Your task to perform on an android device: remove spam from my inbox in the gmail app Image 0: 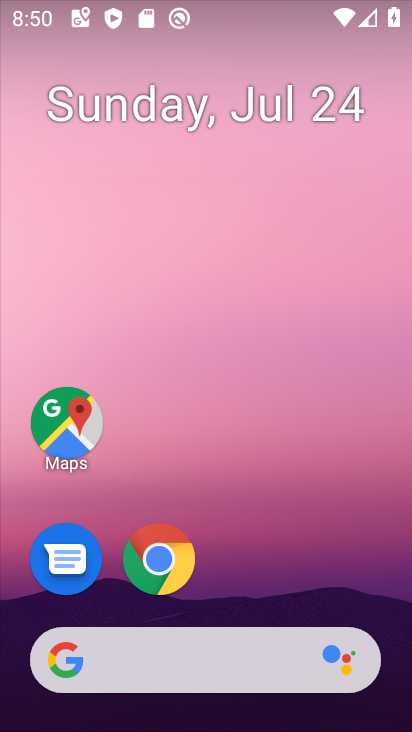
Step 0: drag from (237, 583) to (291, 60)
Your task to perform on an android device: remove spam from my inbox in the gmail app Image 1: 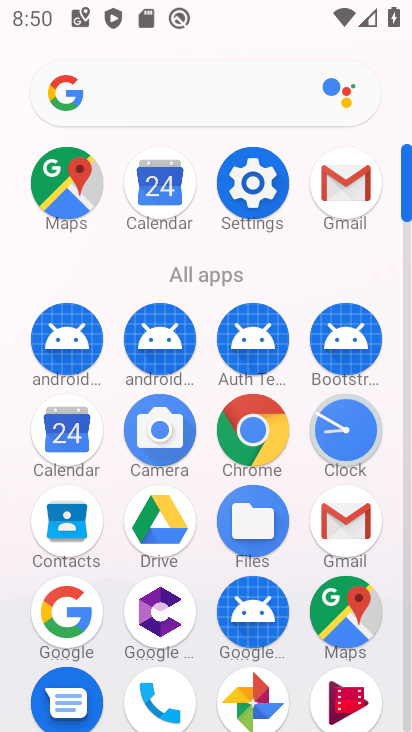
Step 1: click (355, 180)
Your task to perform on an android device: remove spam from my inbox in the gmail app Image 2: 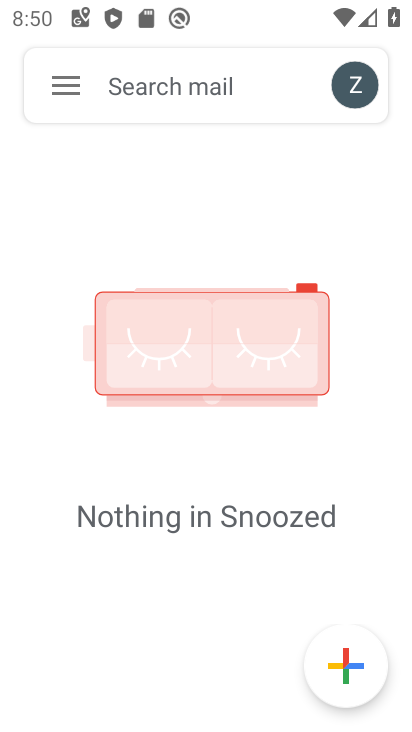
Step 2: click (57, 77)
Your task to perform on an android device: remove spam from my inbox in the gmail app Image 3: 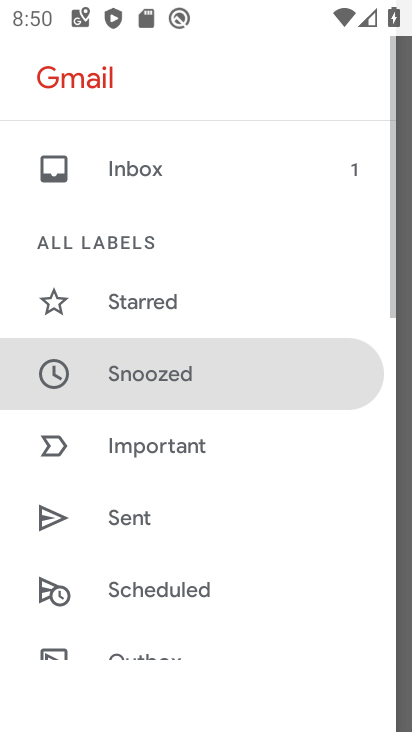
Step 3: drag from (213, 616) to (262, 164)
Your task to perform on an android device: remove spam from my inbox in the gmail app Image 4: 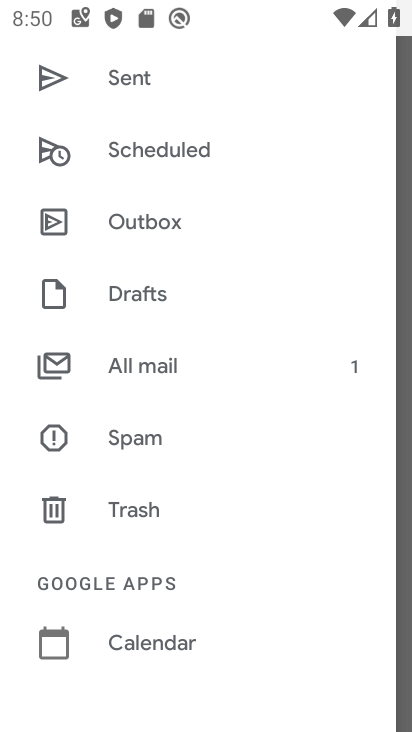
Step 4: click (135, 436)
Your task to perform on an android device: remove spam from my inbox in the gmail app Image 5: 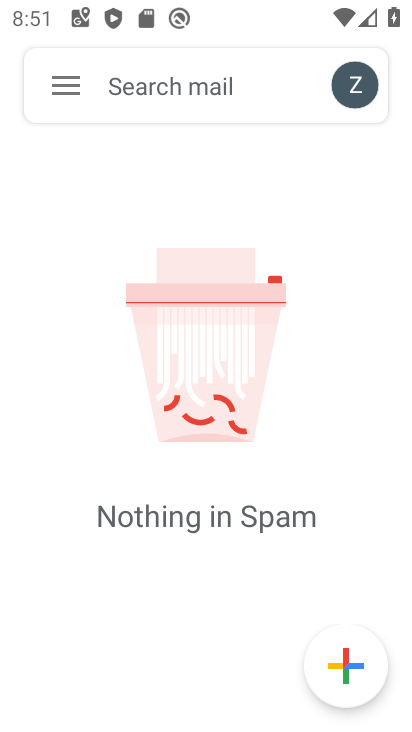
Step 5: task complete